Your task to perform on an android device: Open Android settings Image 0: 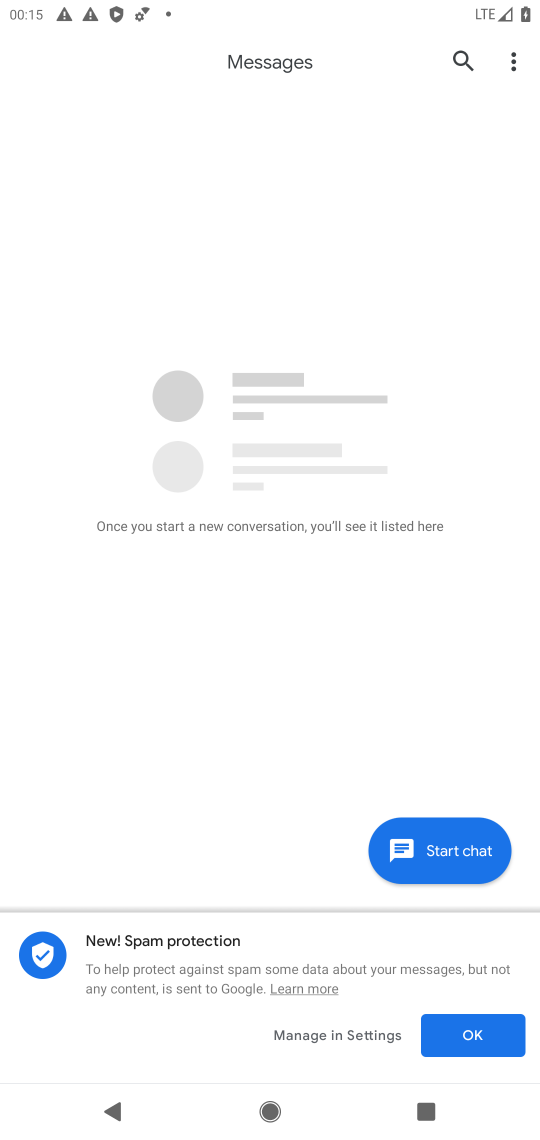
Step 0: press home button
Your task to perform on an android device: Open Android settings Image 1: 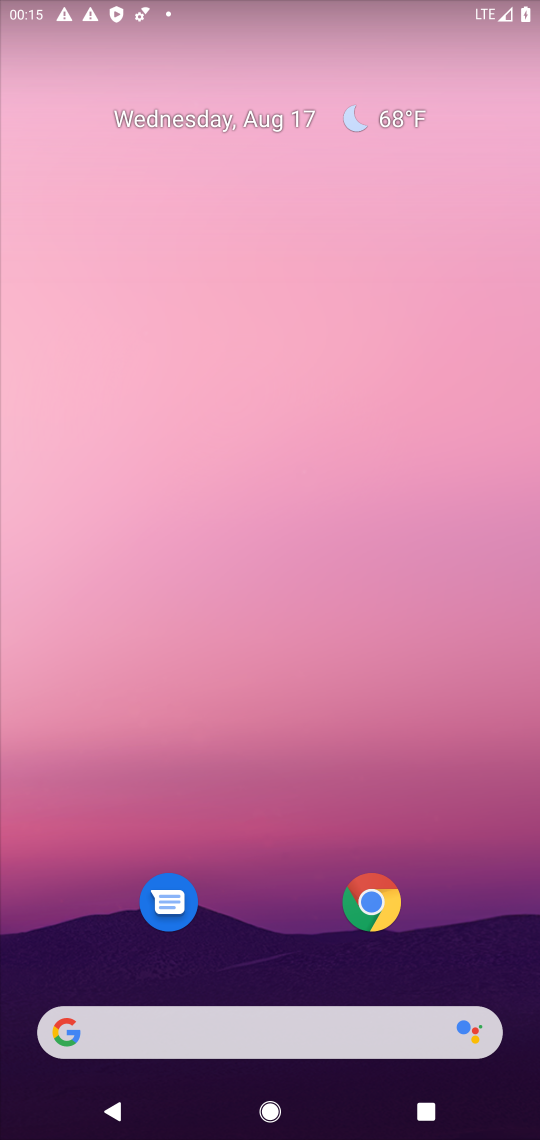
Step 1: drag from (265, 722) to (408, 11)
Your task to perform on an android device: Open Android settings Image 2: 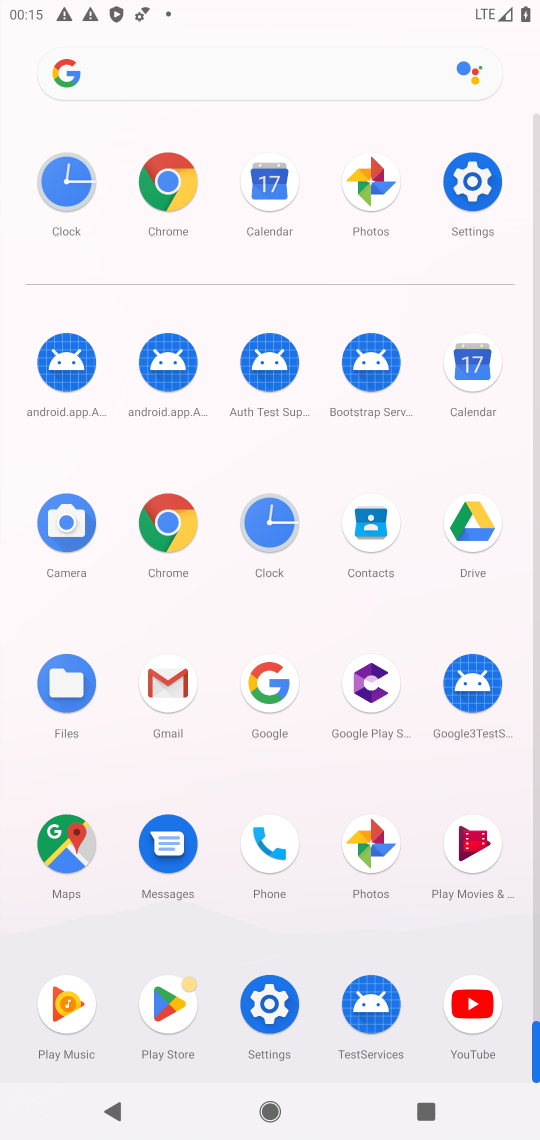
Step 2: click (470, 216)
Your task to perform on an android device: Open Android settings Image 3: 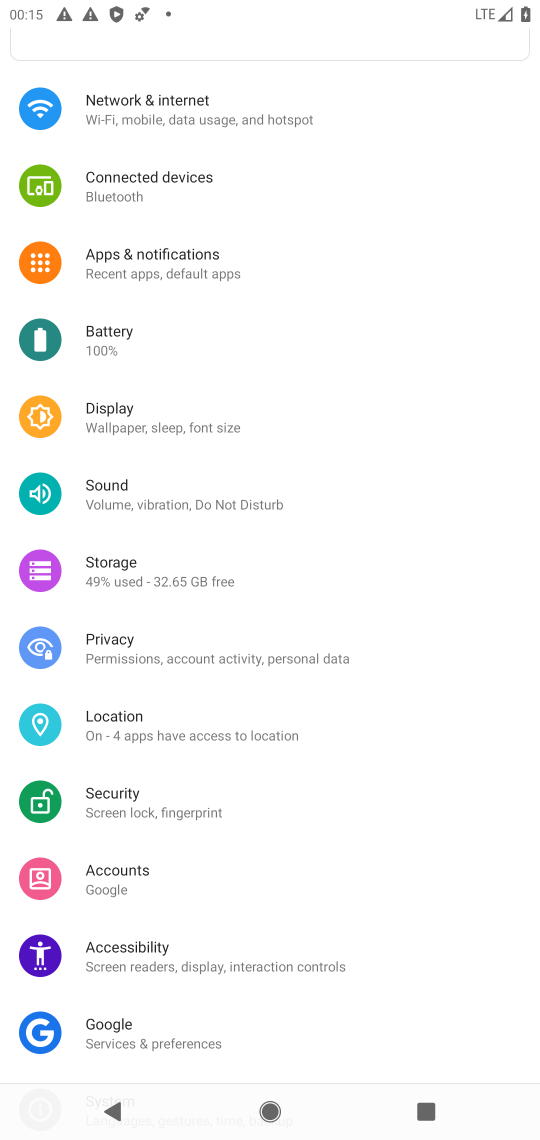
Step 3: drag from (254, 969) to (279, 126)
Your task to perform on an android device: Open Android settings Image 4: 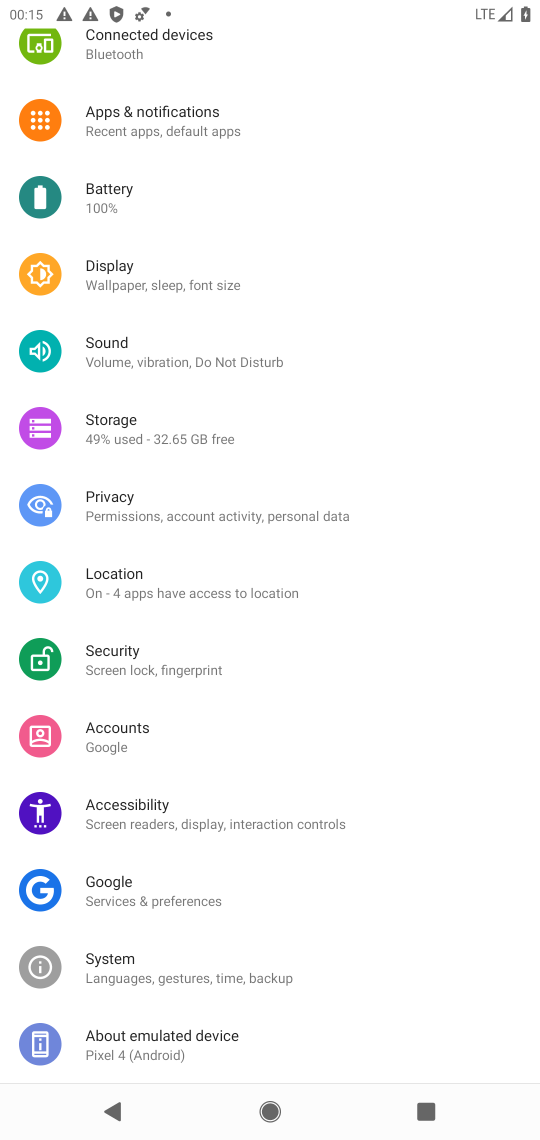
Step 4: drag from (180, 890) to (243, 173)
Your task to perform on an android device: Open Android settings Image 5: 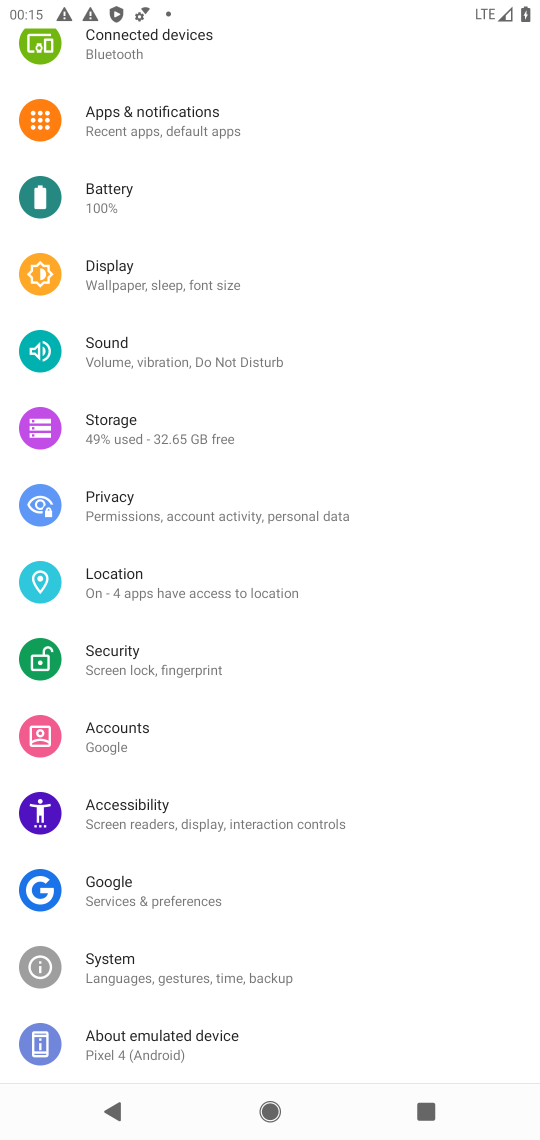
Step 5: click (228, 1042)
Your task to perform on an android device: Open Android settings Image 6: 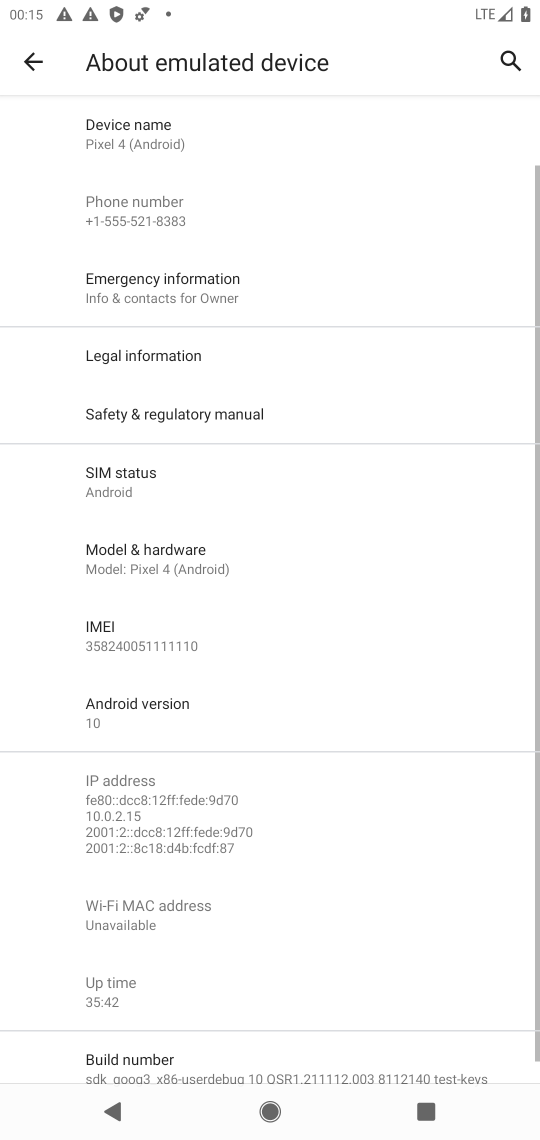
Step 6: click (163, 709)
Your task to perform on an android device: Open Android settings Image 7: 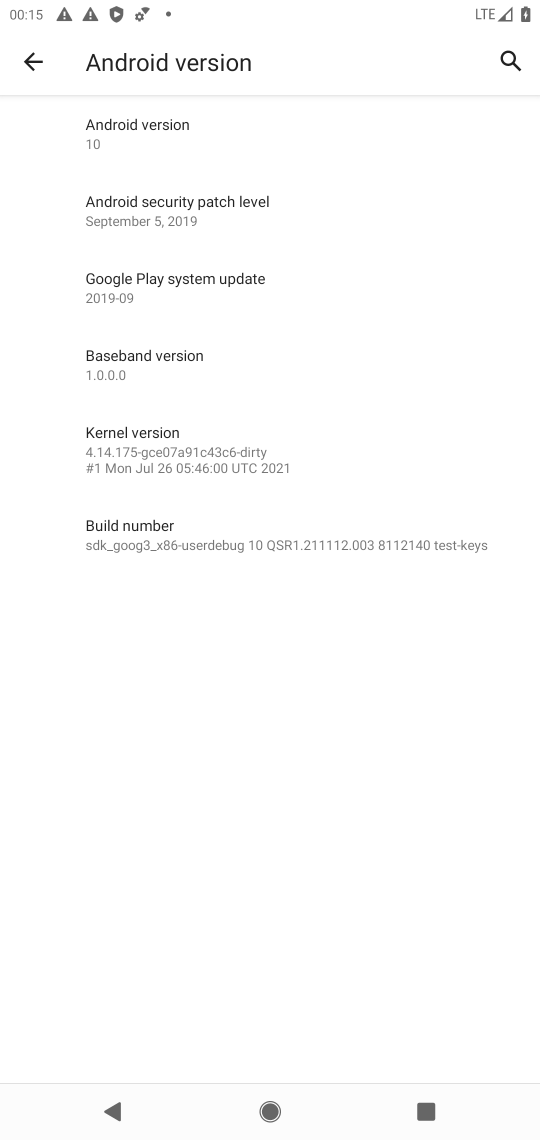
Step 7: task complete